Your task to perform on an android device: turn on location history Image 0: 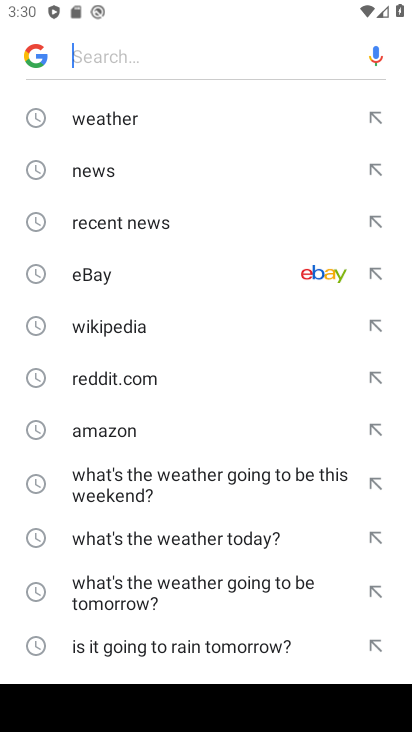
Step 0: press home button
Your task to perform on an android device: turn on location history Image 1: 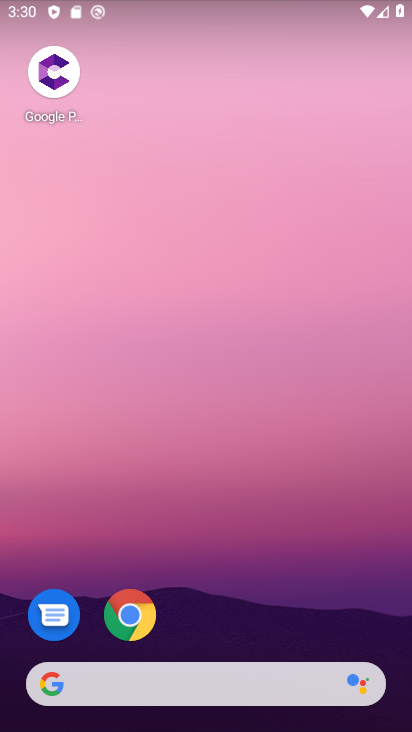
Step 1: drag from (383, 616) to (276, 8)
Your task to perform on an android device: turn on location history Image 2: 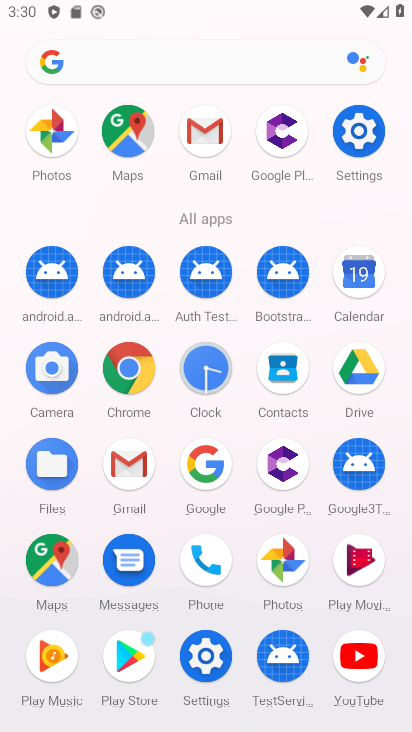
Step 2: click (115, 138)
Your task to perform on an android device: turn on location history Image 3: 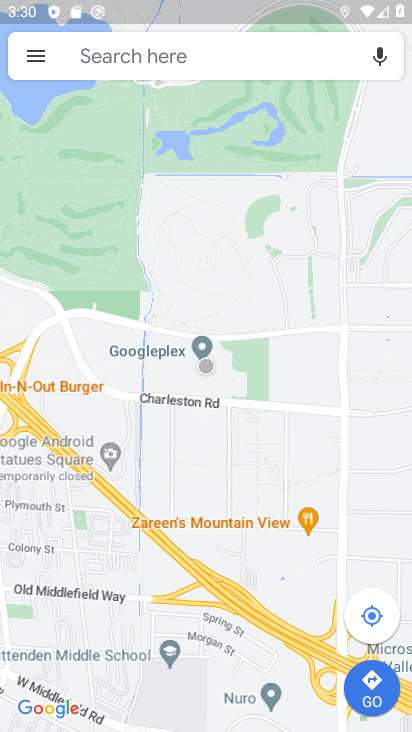
Step 3: click (25, 56)
Your task to perform on an android device: turn on location history Image 4: 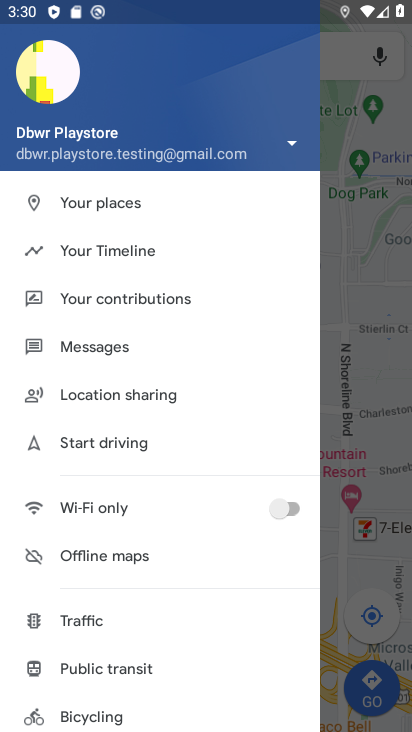
Step 4: click (96, 257)
Your task to perform on an android device: turn on location history Image 5: 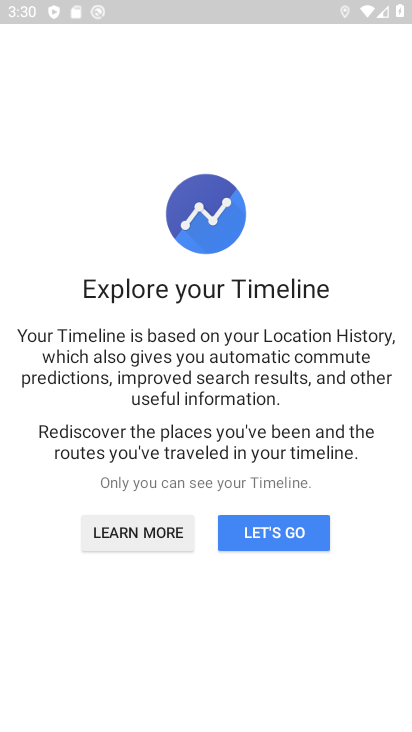
Step 5: click (272, 535)
Your task to perform on an android device: turn on location history Image 6: 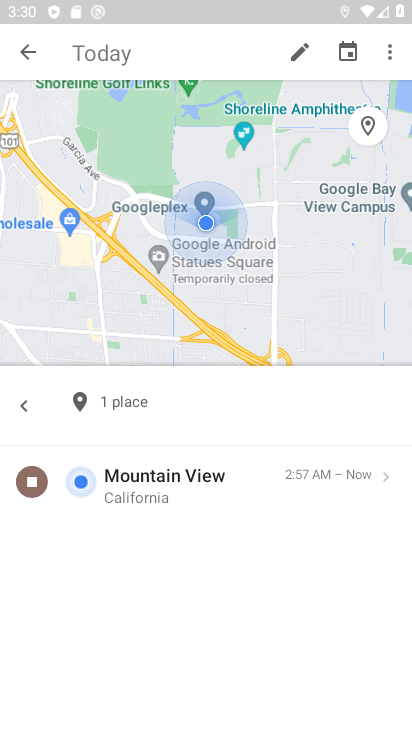
Step 6: click (393, 61)
Your task to perform on an android device: turn on location history Image 7: 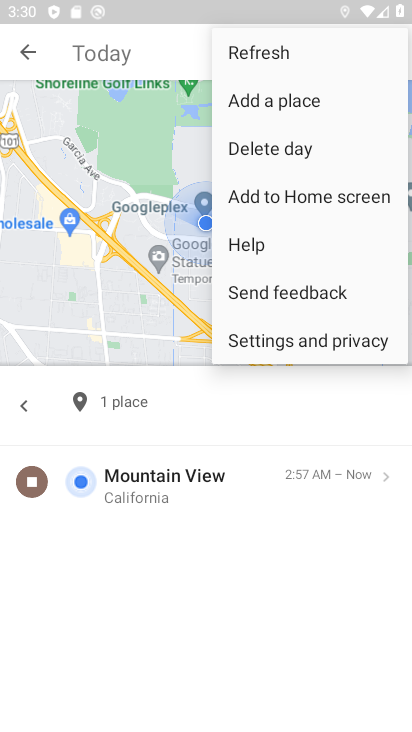
Step 7: click (302, 337)
Your task to perform on an android device: turn on location history Image 8: 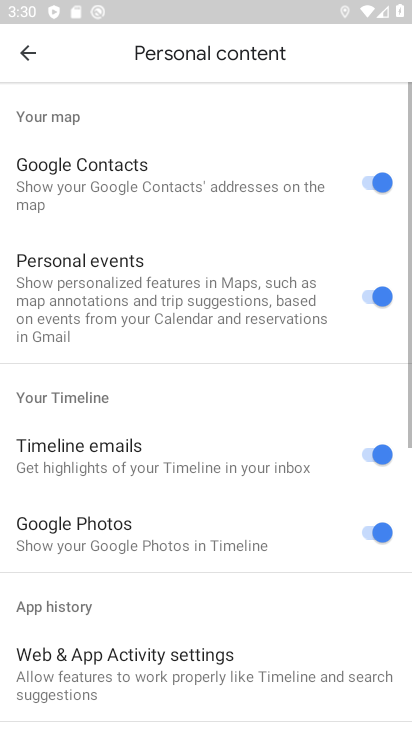
Step 8: drag from (160, 522) to (159, 47)
Your task to perform on an android device: turn on location history Image 9: 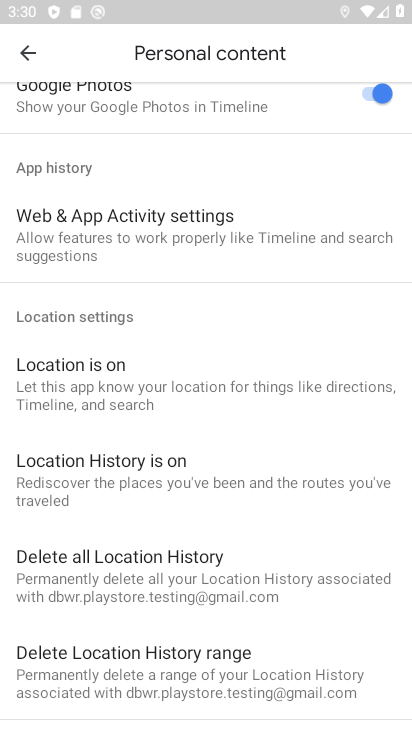
Step 9: click (131, 475)
Your task to perform on an android device: turn on location history Image 10: 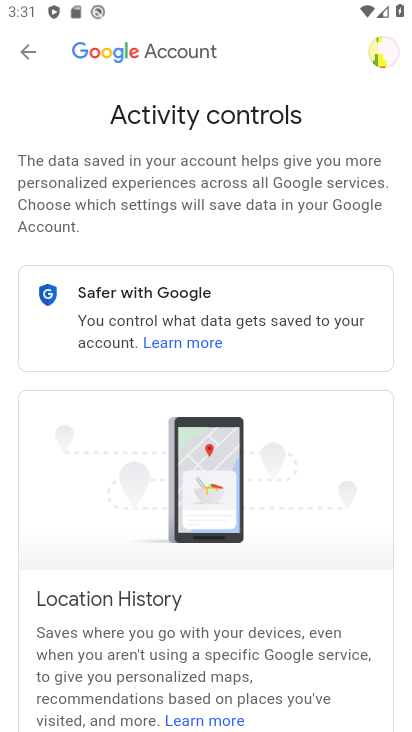
Step 10: task complete